Your task to perform on an android device: toggle sleep mode Image 0: 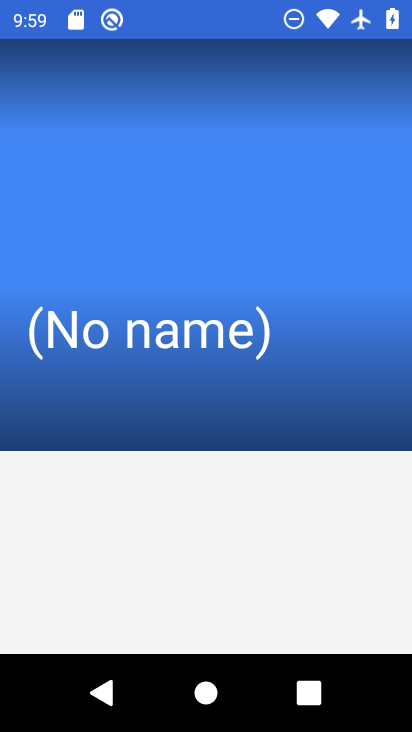
Step 0: drag from (207, 533) to (230, 27)
Your task to perform on an android device: toggle sleep mode Image 1: 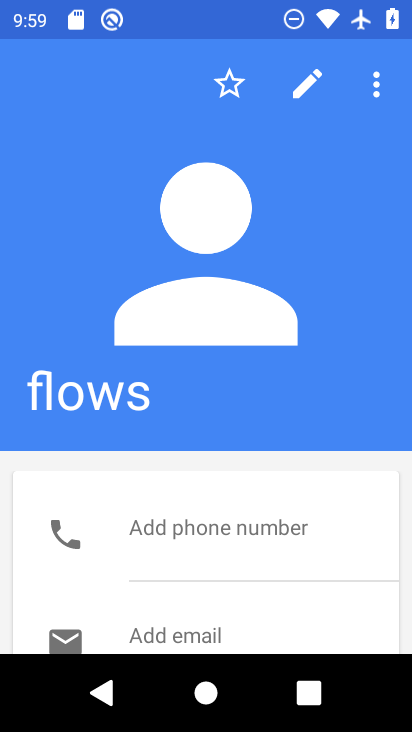
Step 1: press home button
Your task to perform on an android device: toggle sleep mode Image 2: 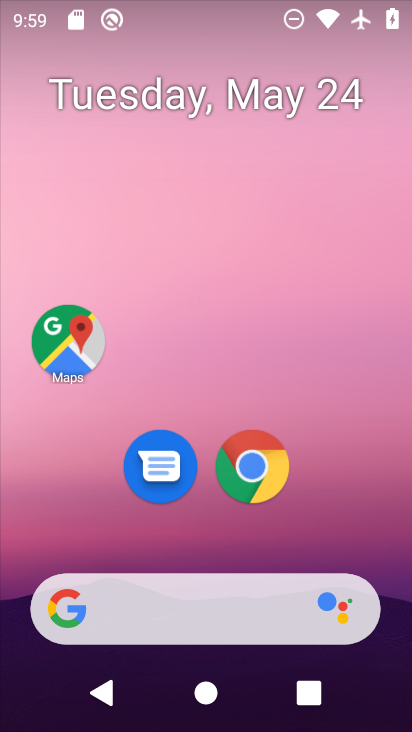
Step 2: drag from (213, 485) to (179, 8)
Your task to perform on an android device: toggle sleep mode Image 3: 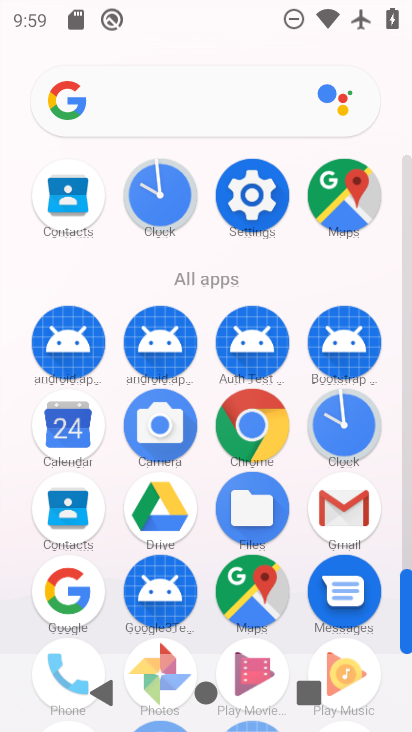
Step 3: click (256, 215)
Your task to perform on an android device: toggle sleep mode Image 4: 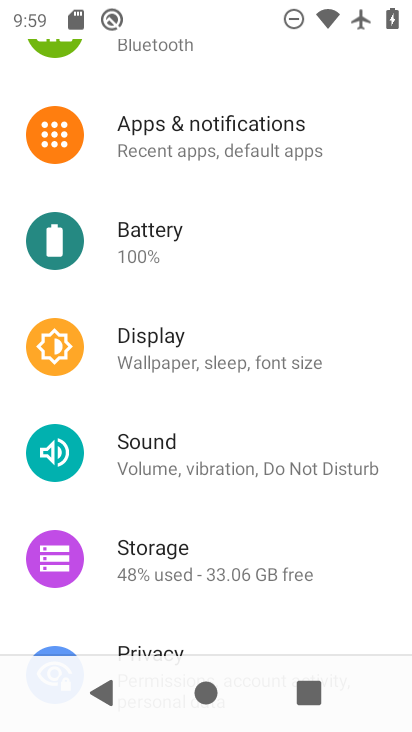
Step 4: drag from (212, 145) to (191, 576)
Your task to perform on an android device: toggle sleep mode Image 5: 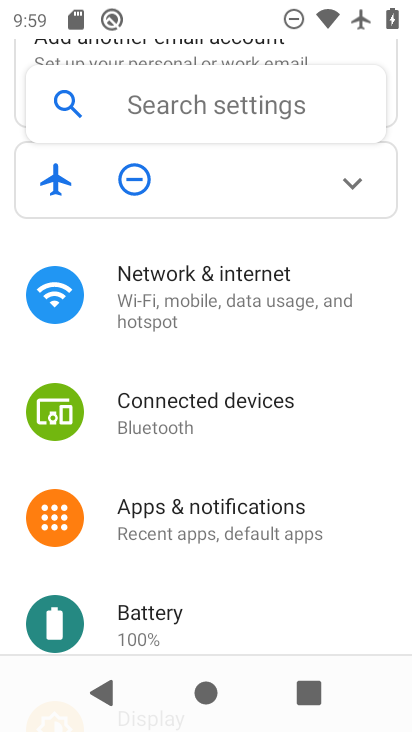
Step 5: click (244, 118)
Your task to perform on an android device: toggle sleep mode Image 6: 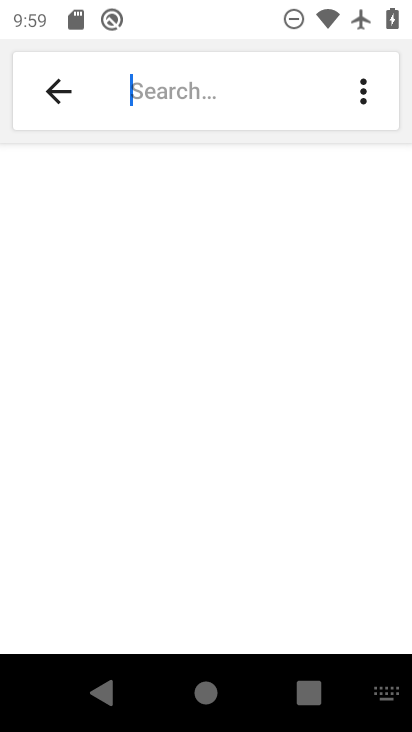
Step 6: type "sleep mode"
Your task to perform on an android device: toggle sleep mode Image 7: 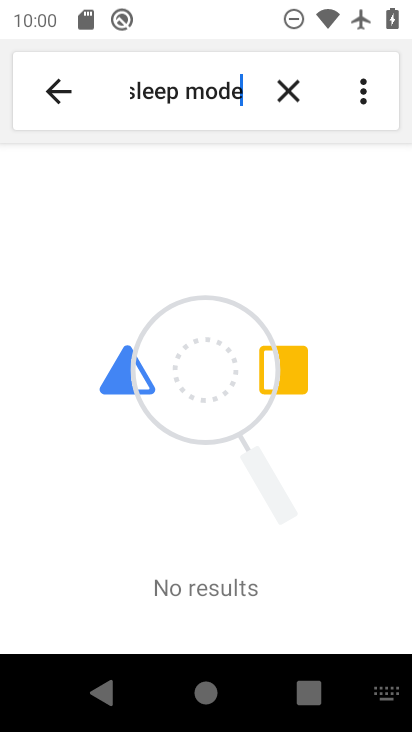
Step 7: task complete